Your task to perform on an android device: Open Chrome and go to the settings page Image 0: 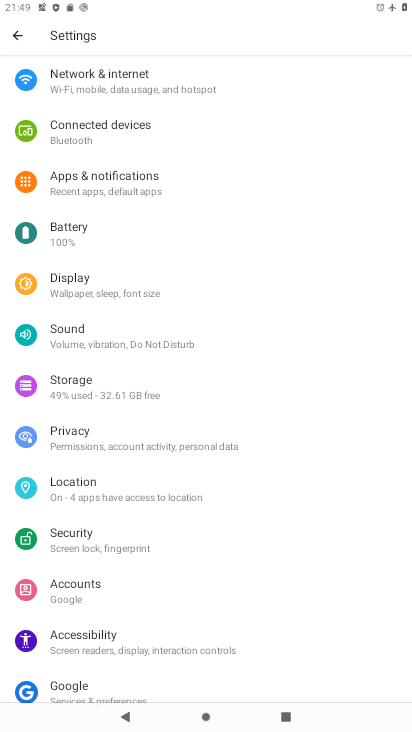
Step 0: press home button
Your task to perform on an android device: Open Chrome and go to the settings page Image 1: 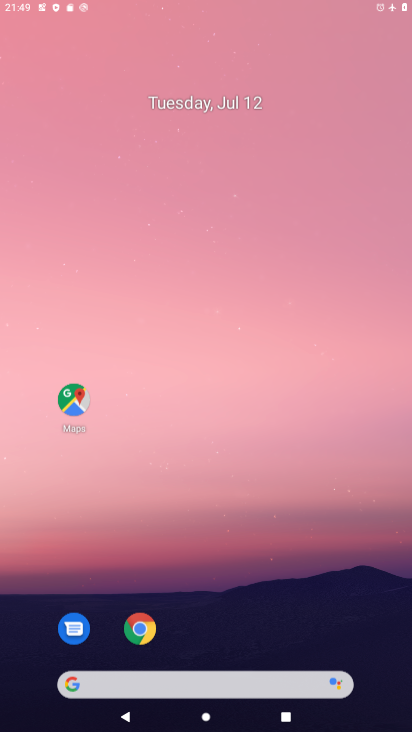
Step 1: click (255, 270)
Your task to perform on an android device: Open Chrome and go to the settings page Image 2: 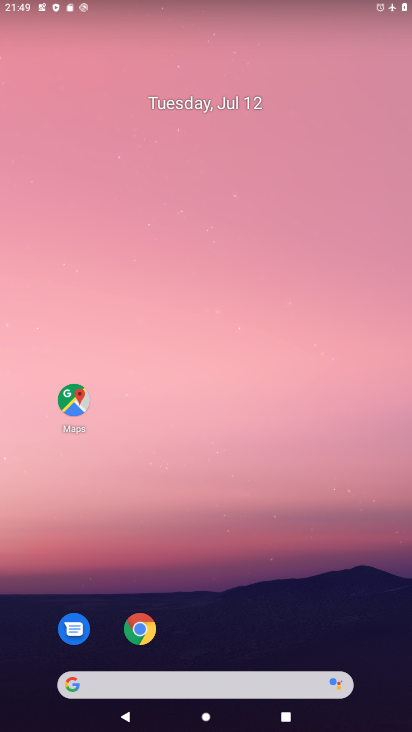
Step 2: drag from (235, 651) to (235, 218)
Your task to perform on an android device: Open Chrome and go to the settings page Image 3: 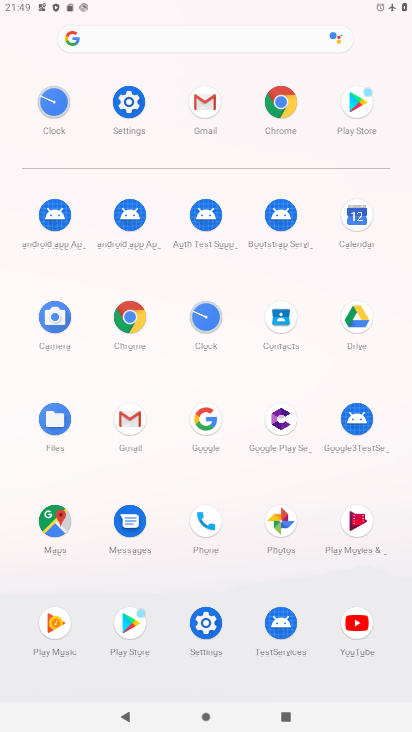
Step 3: click (283, 101)
Your task to perform on an android device: Open Chrome and go to the settings page Image 4: 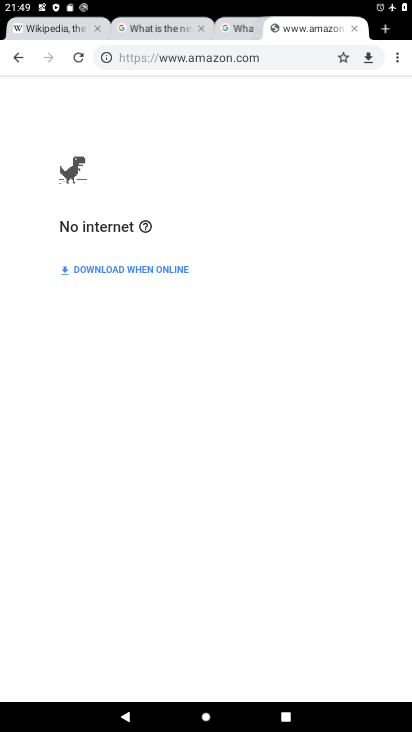
Step 4: click (407, 53)
Your task to perform on an android device: Open Chrome and go to the settings page Image 5: 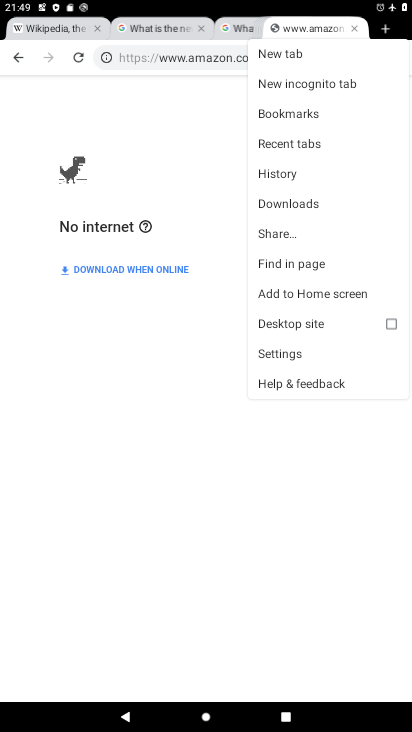
Step 5: click (296, 350)
Your task to perform on an android device: Open Chrome and go to the settings page Image 6: 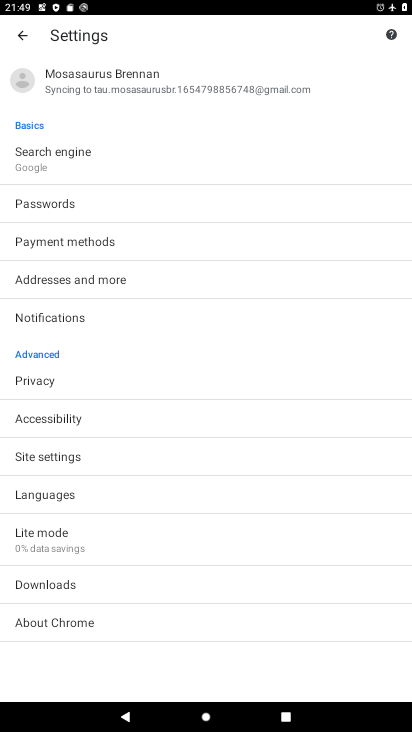
Step 6: task complete